Your task to perform on an android device: Open settings on Google Maps Image 0: 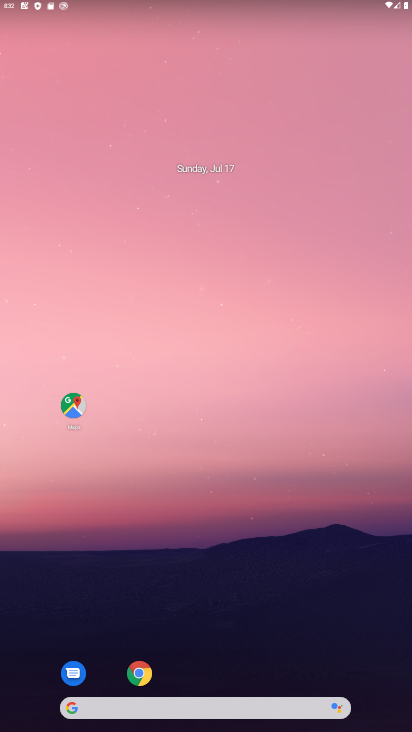
Step 0: click (254, 93)
Your task to perform on an android device: Open settings on Google Maps Image 1: 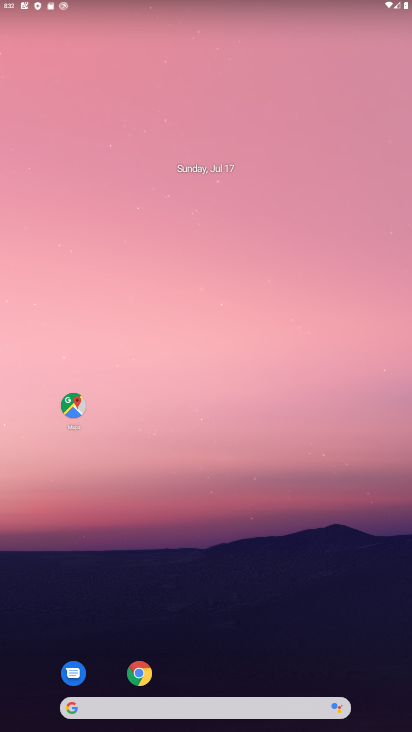
Step 1: drag from (285, 627) to (292, 68)
Your task to perform on an android device: Open settings on Google Maps Image 2: 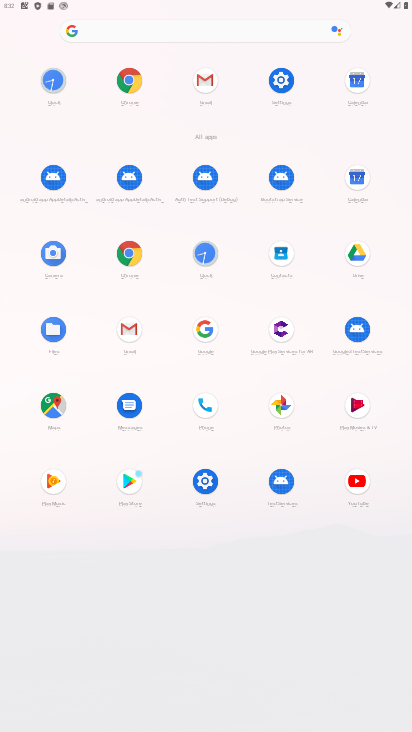
Step 2: click (47, 410)
Your task to perform on an android device: Open settings on Google Maps Image 3: 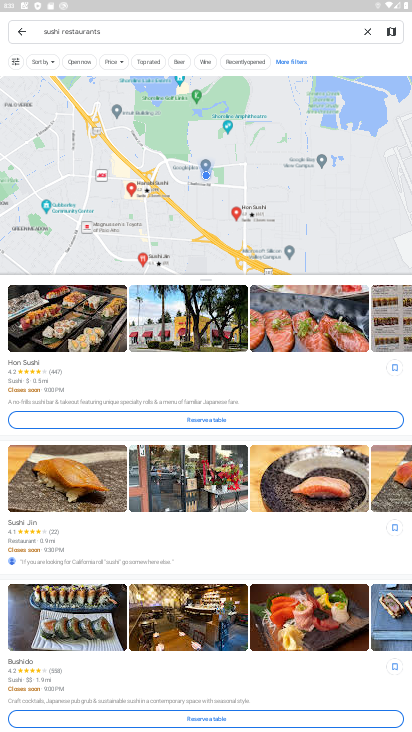
Step 3: task complete